Your task to perform on an android device: delete browsing data in the chrome app Image 0: 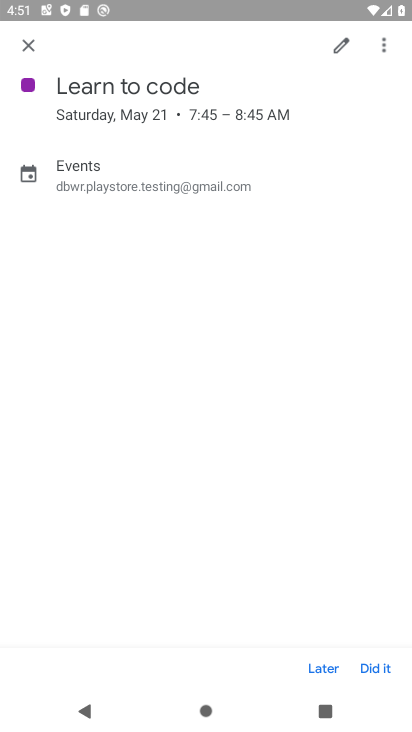
Step 0: press back button
Your task to perform on an android device: delete browsing data in the chrome app Image 1: 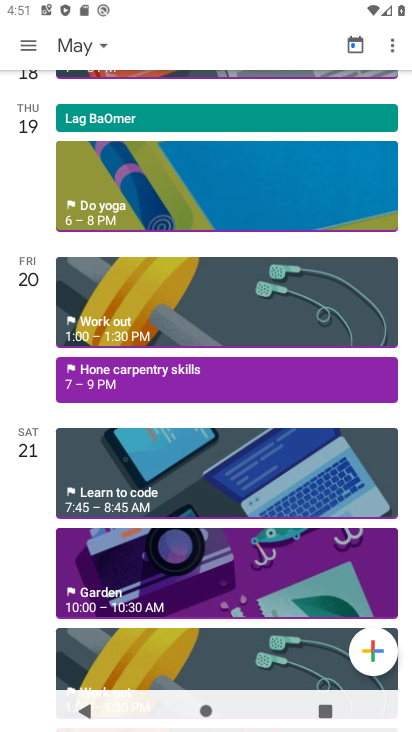
Step 1: press back button
Your task to perform on an android device: delete browsing data in the chrome app Image 2: 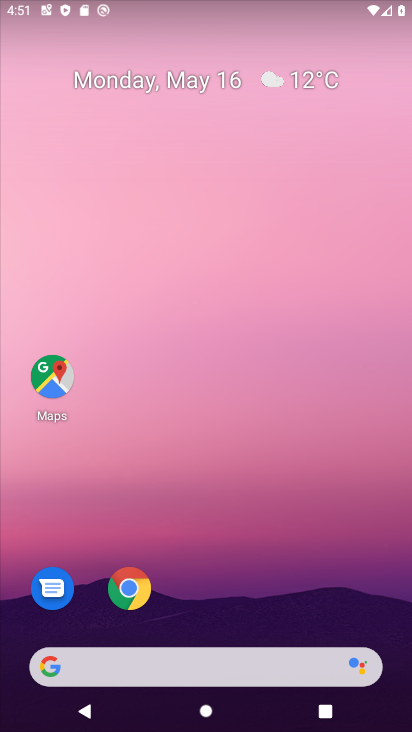
Step 2: click (123, 583)
Your task to perform on an android device: delete browsing data in the chrome app Image 3: 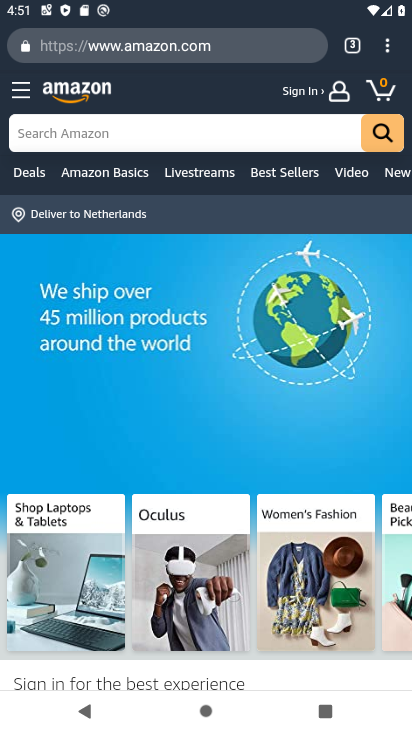
Step 3: click (386, 46)
Your task to perform on an android device: delete browsing data in the chrome app Image 4: 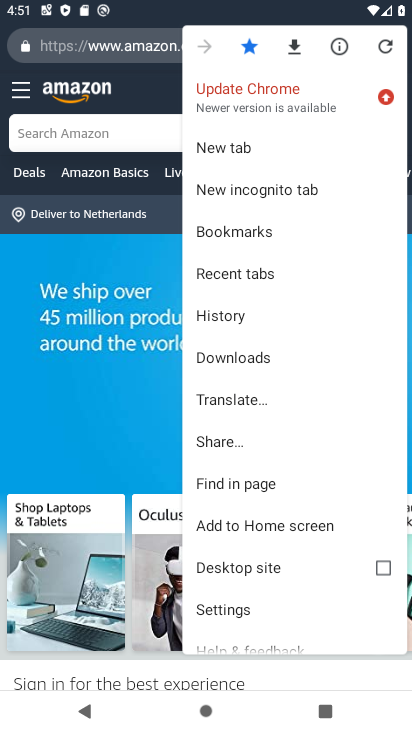
Step 4: click (226, 318)
Your task to perform on an android device: delete browsing data in the chrome app Image 5: 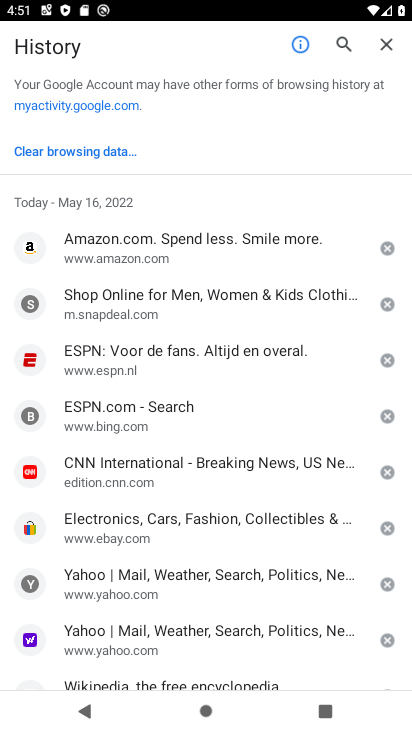
Step 5: click (115, 149)
Your task to perform on an android device: delete browsing data in the chrome app Image 6: 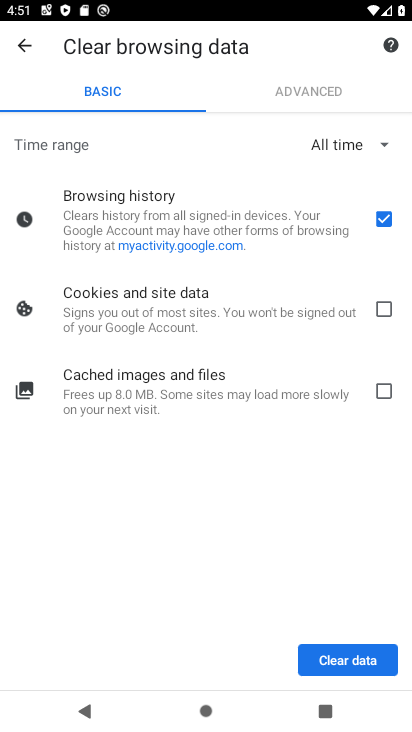
Step 6: click (381, 307)
Your task to perform on an android device: delete browsing data in the chrome app Image 7: 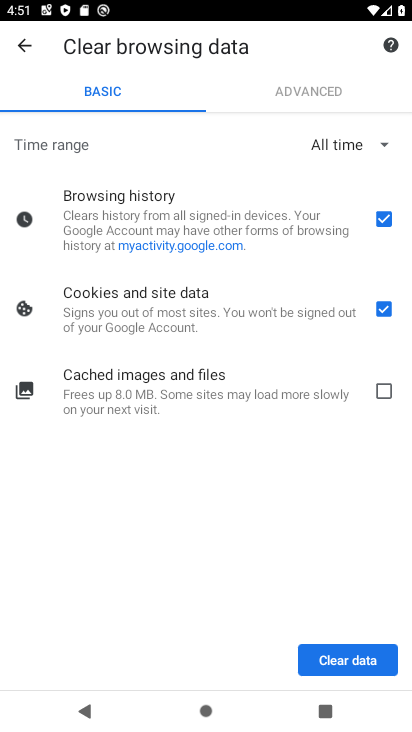
Step 7: click (385, 393)
Your task to perform on an android device: delete browsing data in the chrome app Image 8: 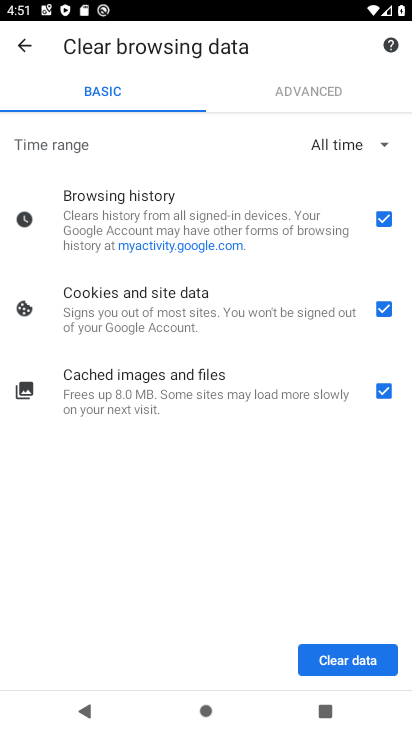
Step 8: click (318, 647)
Your task to perform on an android device: delete browsing data in the chrome app Image 9: 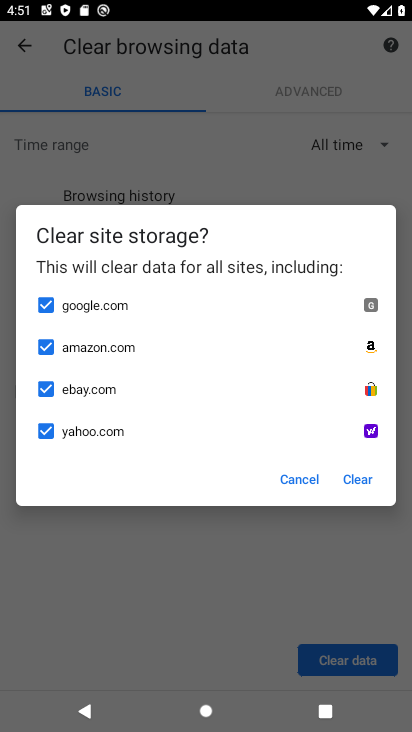
Step 9: click (361, 476)
Your task to perform on an android device: delete browsing data in the chrome app Image 10: 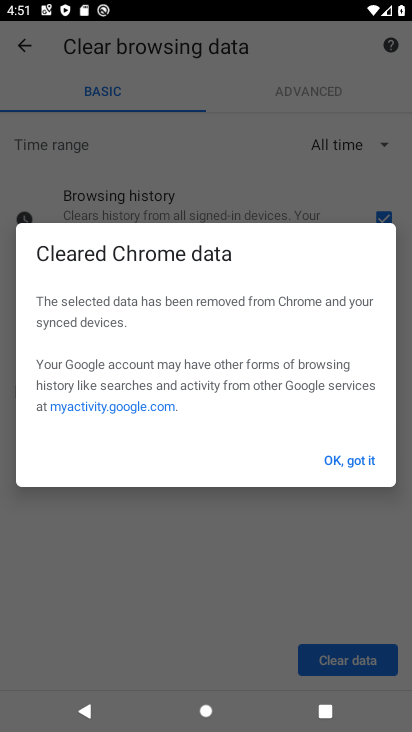
Step 10: task complete